Your task to perform on an android device: turn off javascript in the chrome app Image 0: 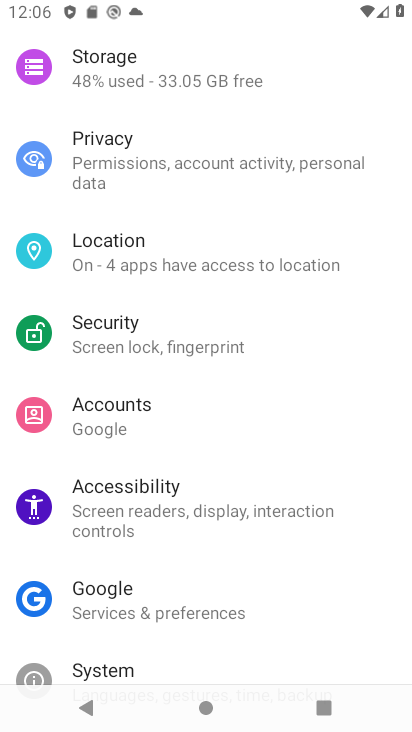
Step 0: press home button
Your task to perform on an android device: turn off javascript in the chrome app Image 1: 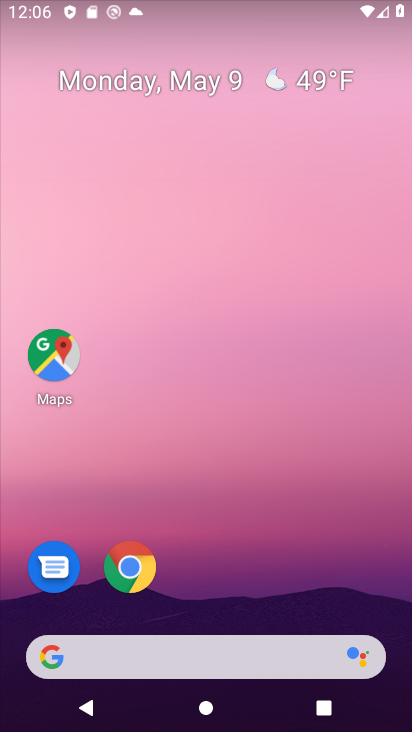
Step 1: click (131, 562)
Your task to perform on an android device: turn off javascript in the chrome app Image 2: 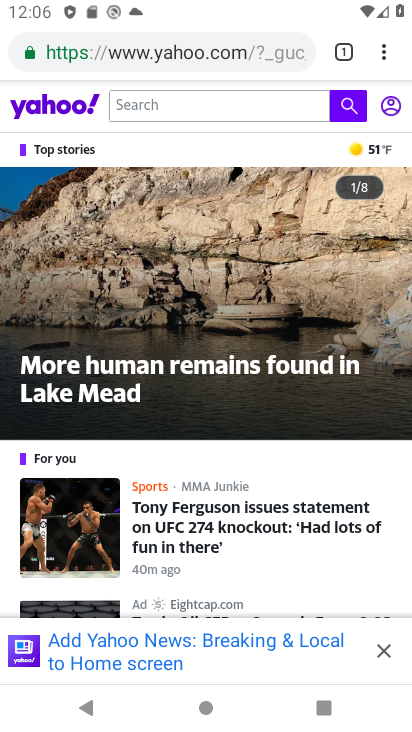
Step 2: click (385, 60)
Your task to perform on an android device: turn off javascript in the chrome app Image 3: 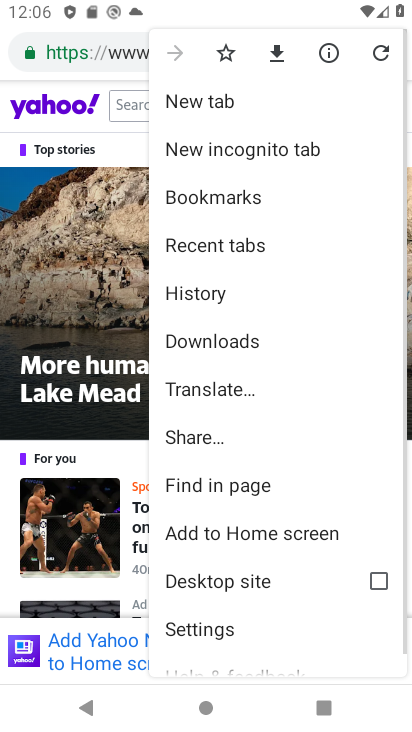
Step 3: click (213, 630)
Your task to perform on an android device: turn off javascript in the chrome app Image 4: 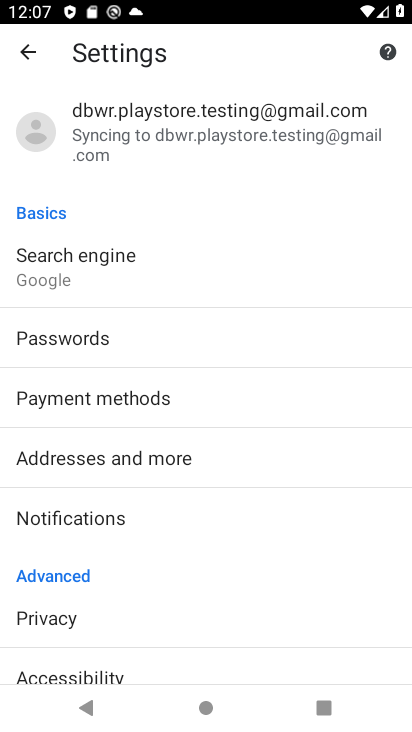
Step 4: drag from (190, 666) to (199, 293)
Your task to perform on an android device: turn off javascript in the chrome app Image 5: 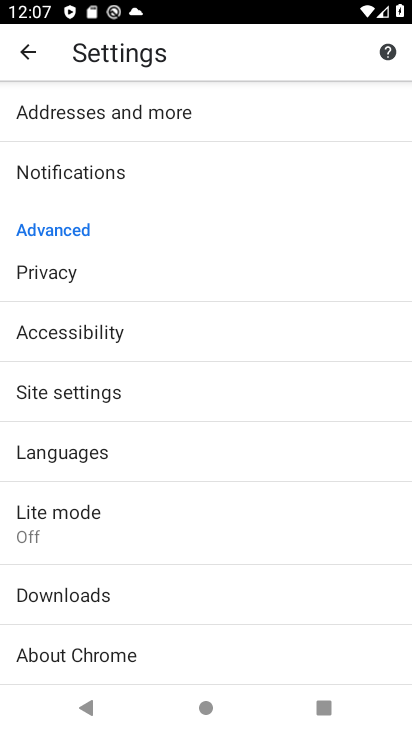
Step 5: click (77, 395)
Your task to perform on an android device: turn off javascript in the chrome app Image 6: 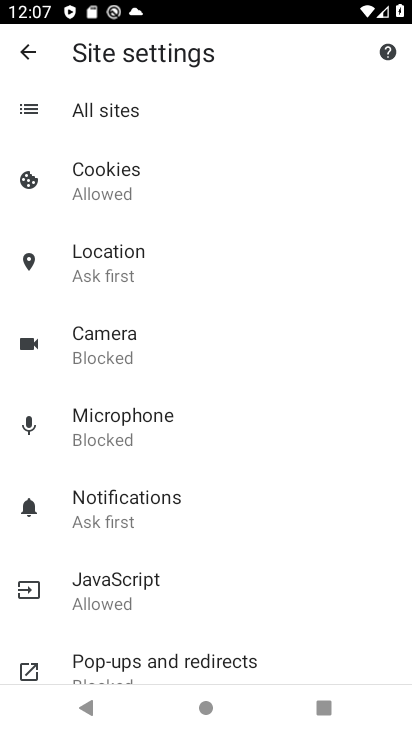
Step 6: click (111, 580)
Your task to perform on an android device: turn off javascript in the chrome app Image 7: 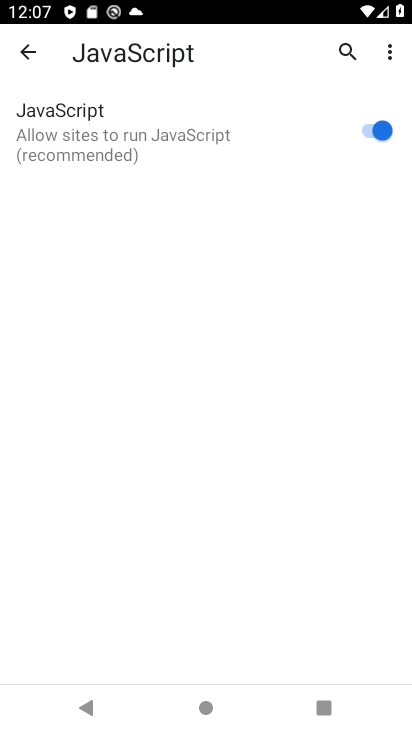
Step 7: click (372, 132)
Your task to perform on an android device: turn off javascript in the chrome app Image 8: 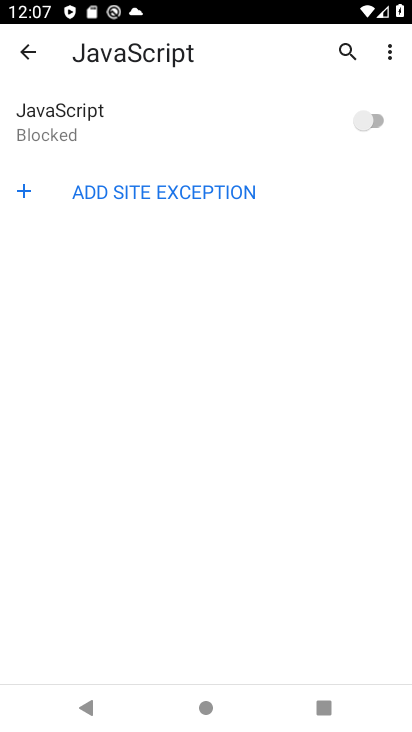
Step 8: task complete